Your task to perform on an android device: Open the camera Image 0: 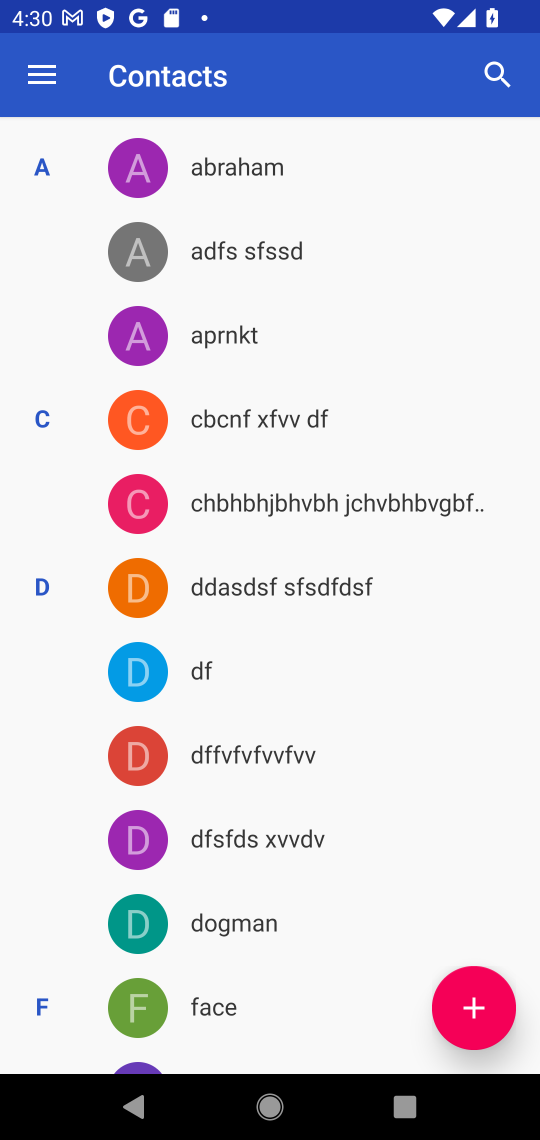
Step 0: press home button
Your task to perform on an android device: Open the camera Image 1: 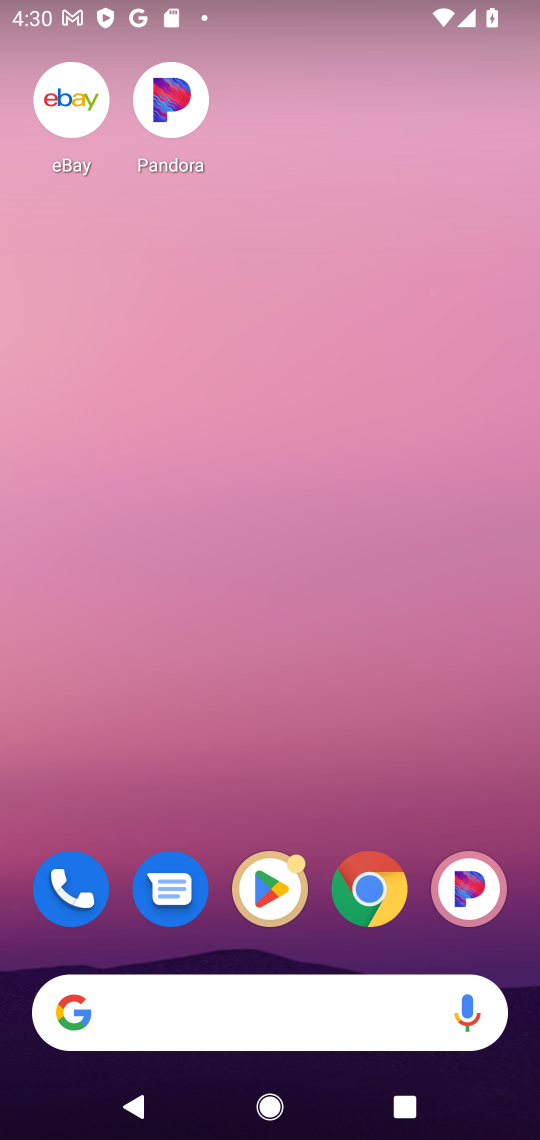
Step 1: drag from (244, 1044) to (222, 390)
Your task to perform on an android device: Open the camera Image 2: 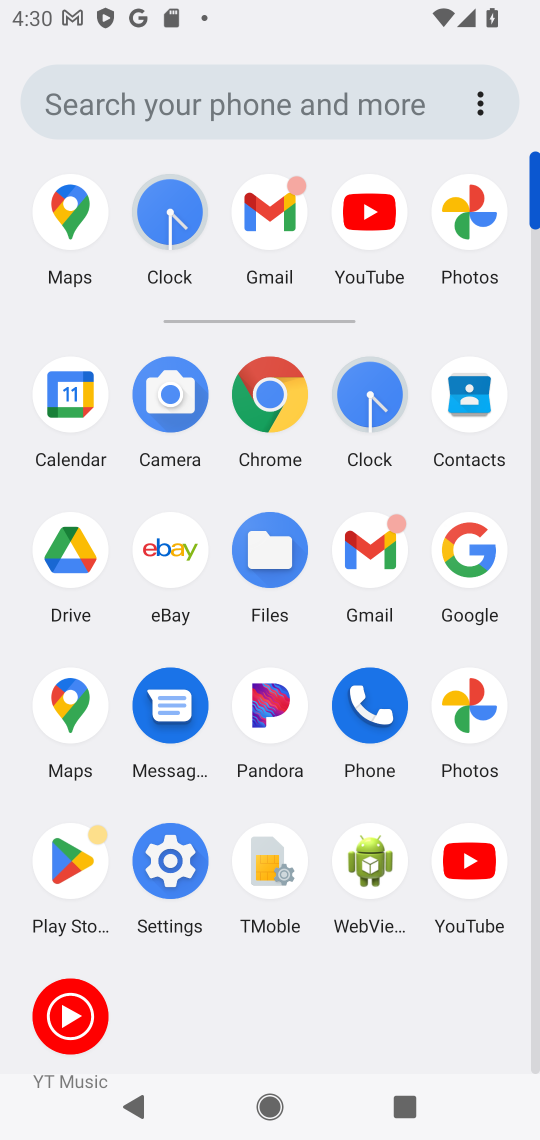
Step 2: click (150, 387)
Your task to perform on an android device: Open the camera Image 3: 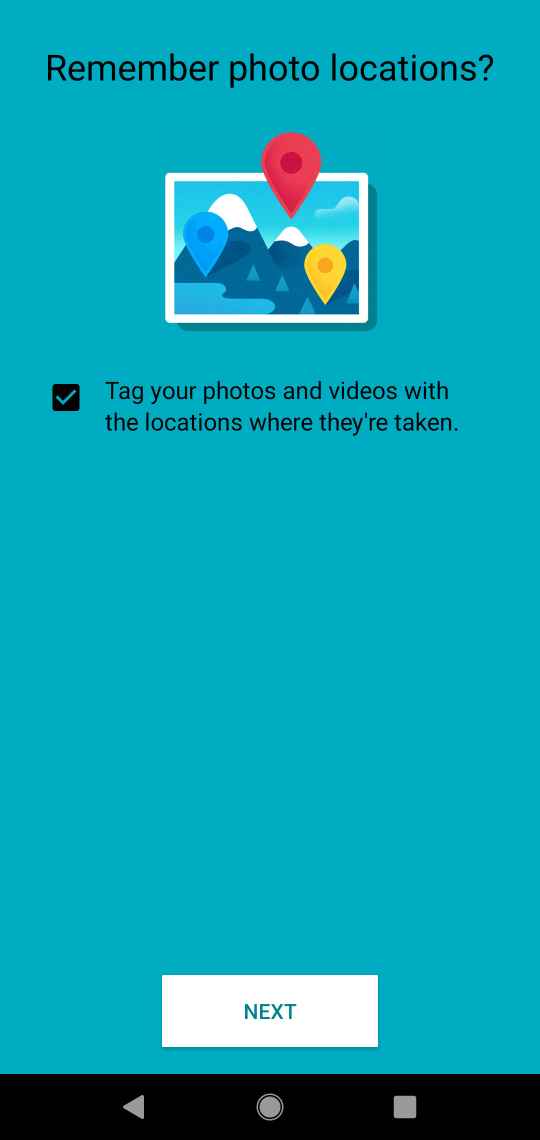
Step 3: click (338, 1014)
Your task to perform on an android device: Open the camera Image 4: 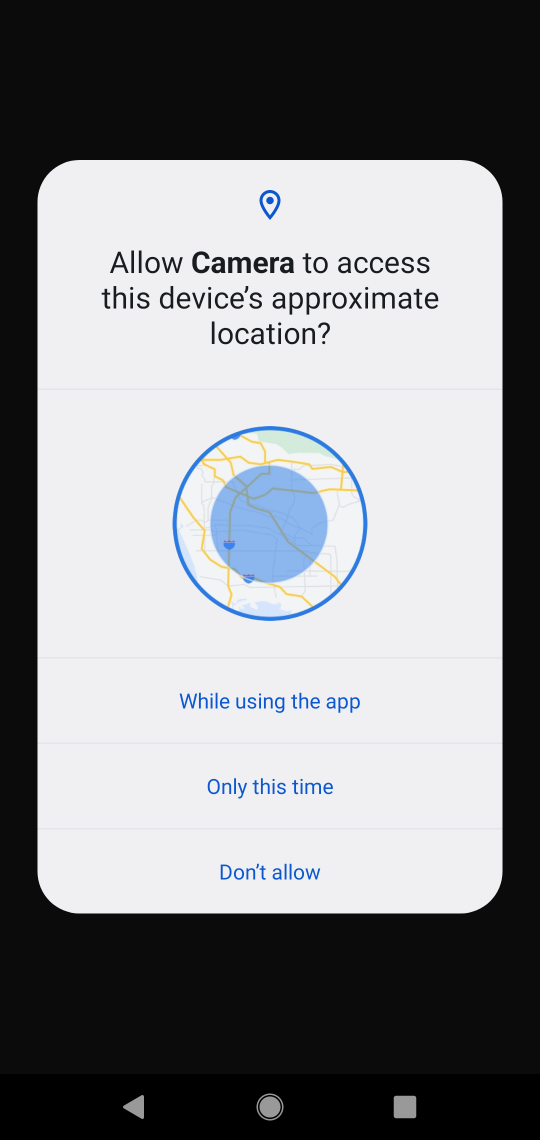
Step 4: click (332, 790)
Your task to perform on an android device: Open the camera Image 5: 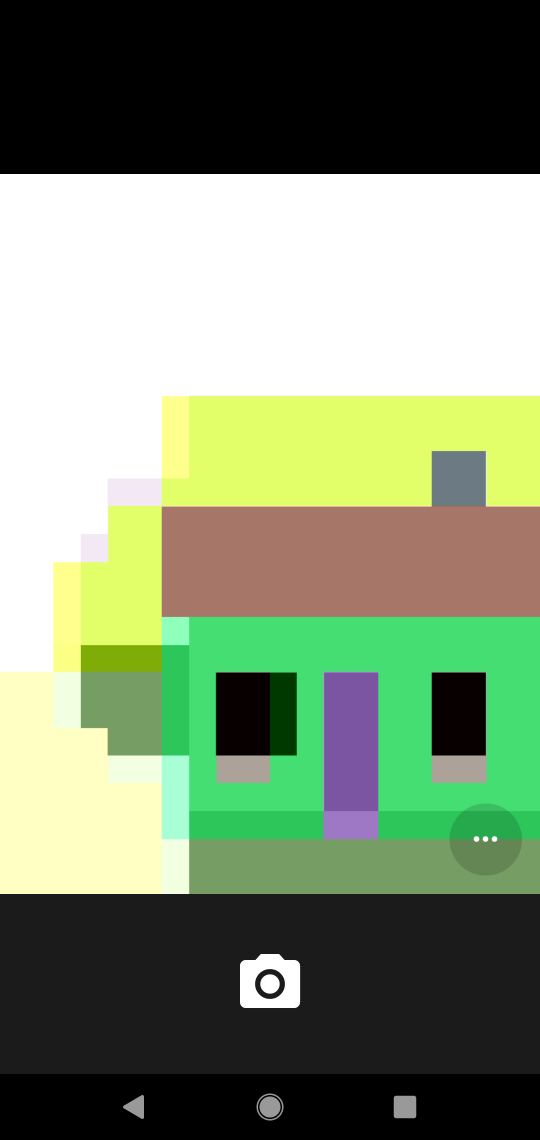
Step 5: task complete